Your task to perform on an android device: Go to location settings Image 0: 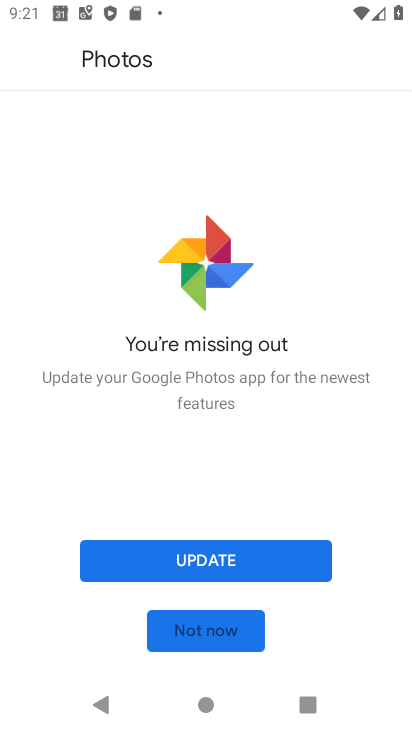
Step 0: click (249, 557)
Your task to perform on an android device: Go to location settings Image 1: 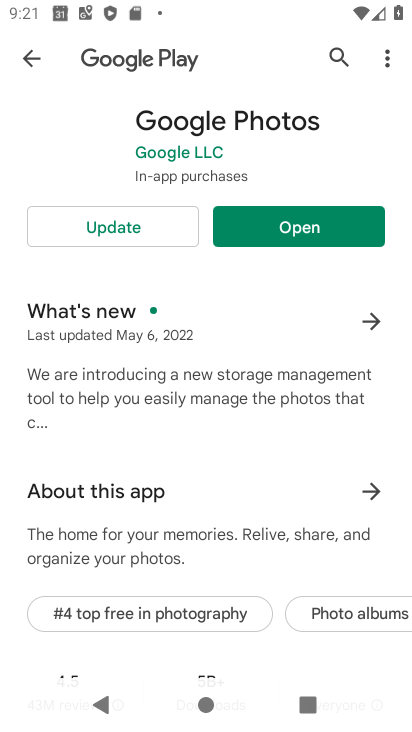
Step 1: press home button
Your task to perform on an android device: Go to location settings Image 2: 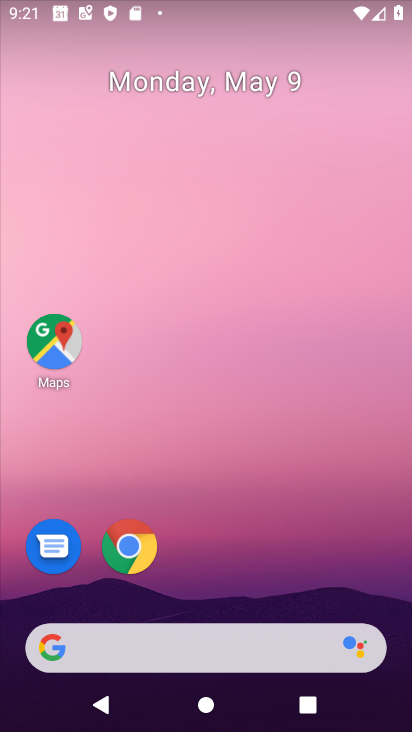
Step 2: drag from (259, 698) to (192, 145)
Your task to perform on an android device: Go to location settings Image 3: 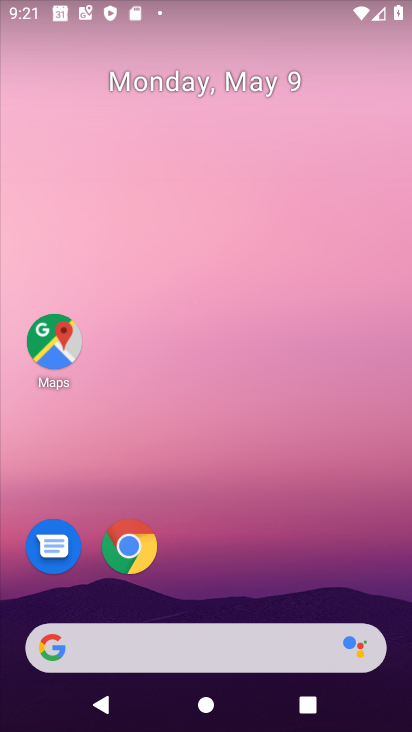
Step 3: drag from (277, 692) to (271, 102)
Your task to perform on an android device: Go to location settings Image 4: 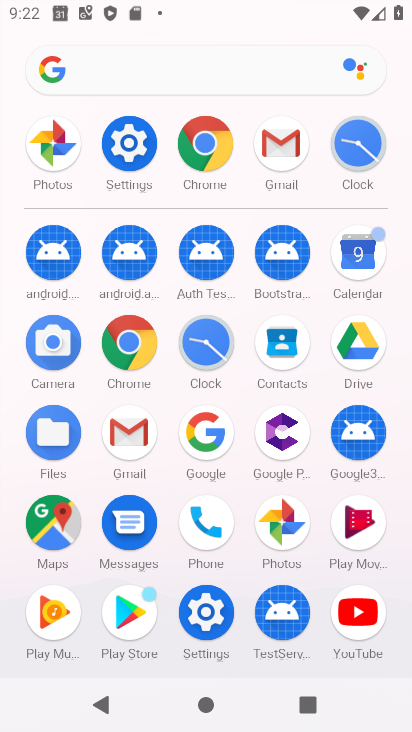
Step 4: click (138, 153)
Your task to perform on an android device: Go to location settings Image 5: 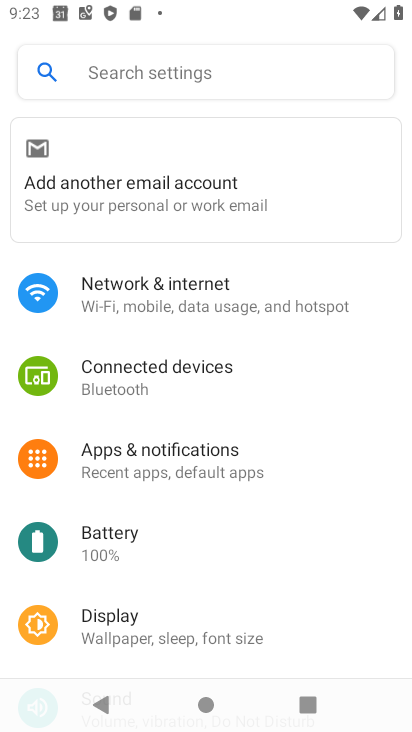
Step 5: drag from (203, 623) to (281, 185)
Your task to perform on an android device: Go to location settings Image 6: 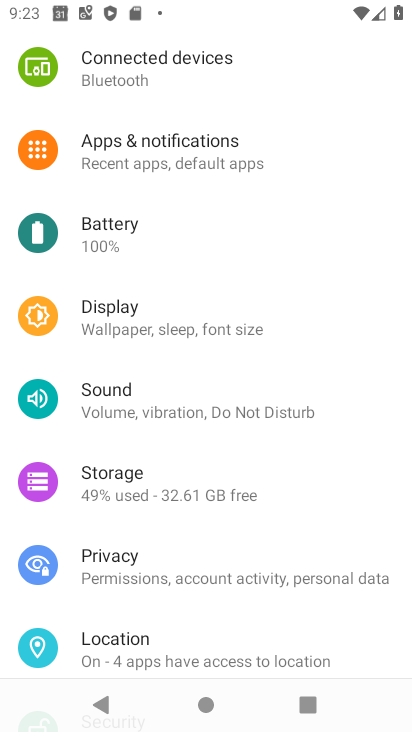
Step 6: click (153, 661)
Your task to perform on an android device: Go to location settings Image 7: 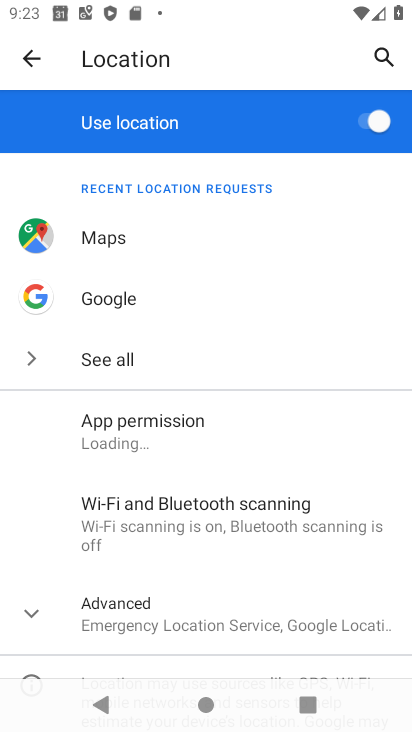
Step 7: task complete